Your task to perform on an android device: Go to privacy settings Image 0: 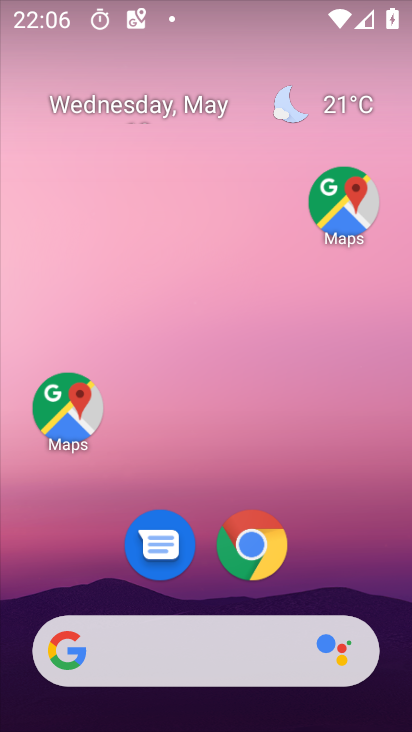
Step 0: drag from (315, 577) to (317, 4)
Your task to perform on an android device: Go to privacy settings Image 1: 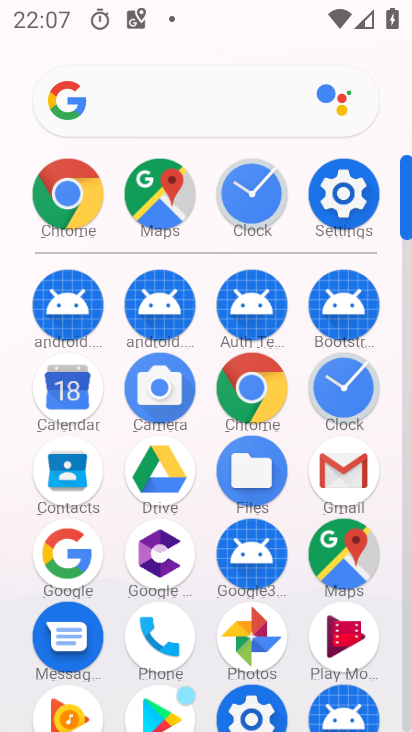
Step 1: click (346, 196)
Your task to perform on an android device: Go to privacy settings Image 2: 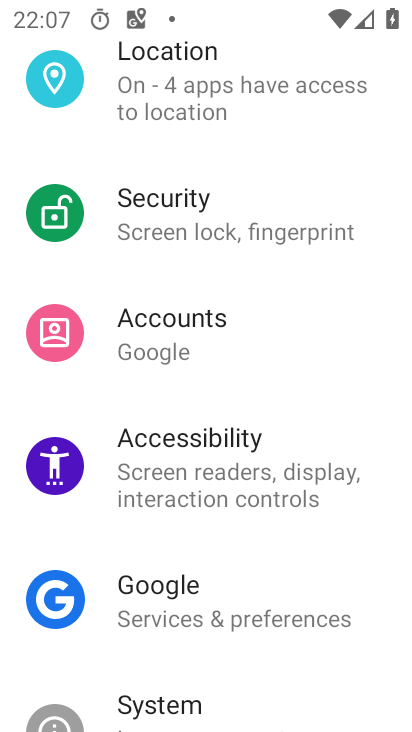
Step 2: drag from (207, 244) to (187, 397)
Your task to perform on an android device: Go to privacy settings Image 3: 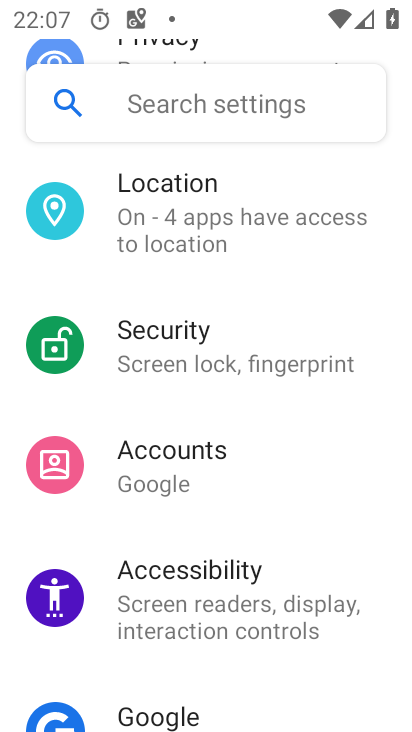
Step 3: drag from (174, 277) to (166, 417)
Your task to perform on an android device: Go to privacy settings Image 4: 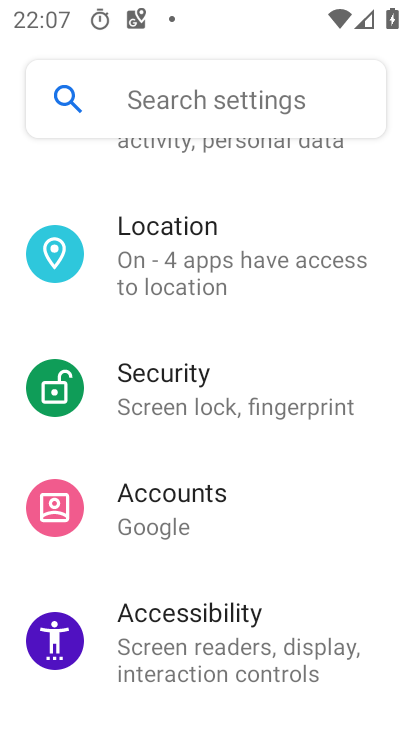
Step 4: drag from (199, 283) to (180, 406)
Your task to perform on an android device: Go to privacy settings Image 5: 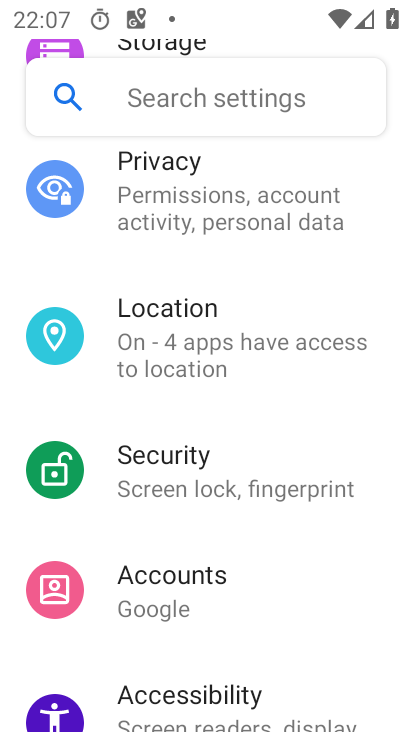
Step 5: click (207, 210)
Your task to perform on an android device: Go to privacy settings Image 6: 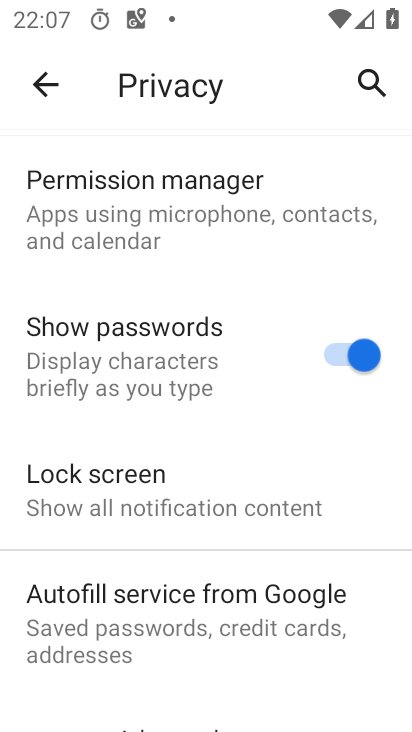
Step 6: task complete